Your task to perform on an android device: Find coffee shops on Maps Image 0: 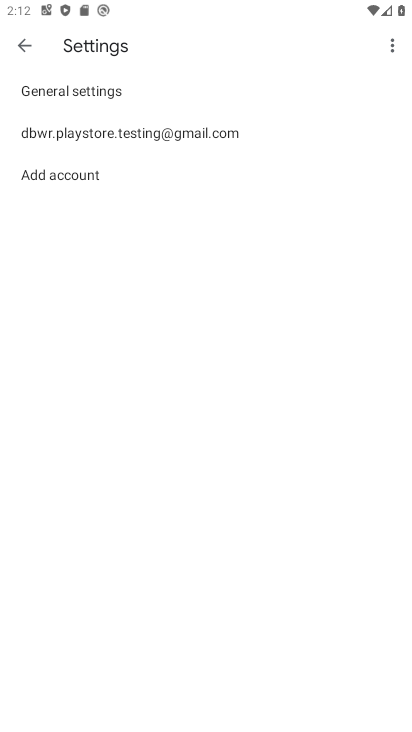
Step 0: press back button
Your task to perform on an android device: Find coffee shops on Maps Image 1: 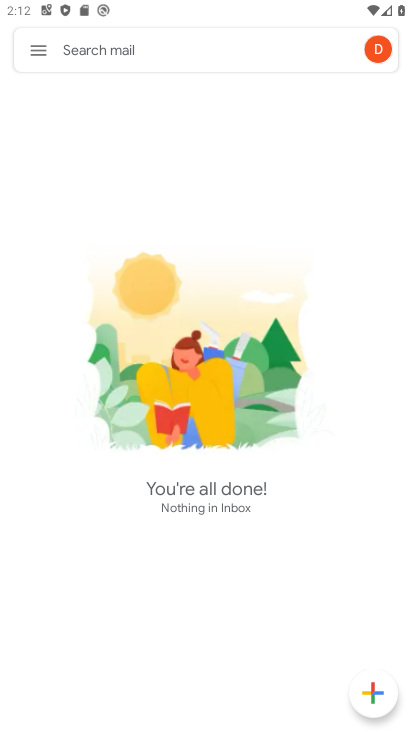
Step 1: press back button
Your task to perform on an android device: Find coffee shops on Maps Image 2: 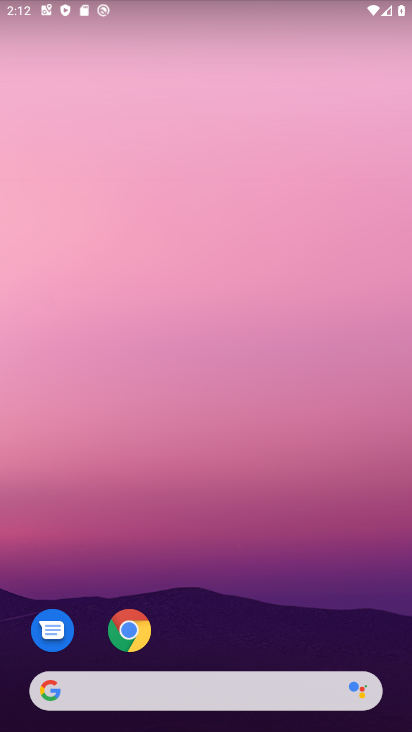
Step 2: click (58, 397)
Your task to perform on an android device: Find coffee shops on Maps Image 3: 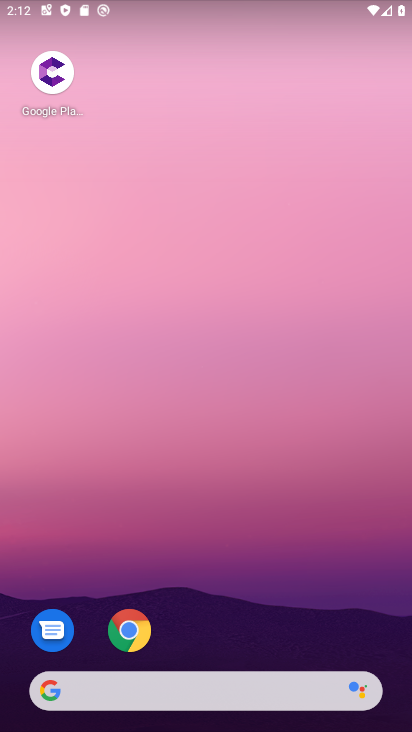
Step 3: drag from (58, 397) to (327, 402)
Your task to perform on an android device: Find coffee shops on Maps Image 4: 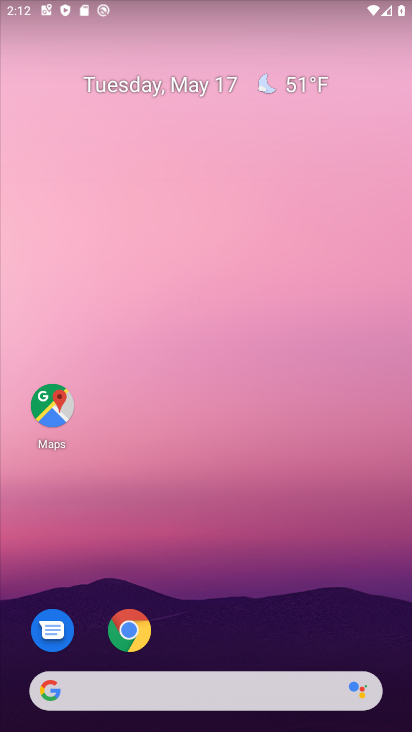
Step 4: click (37, 396)
Your task to perform on an android device: Find coffee shops on Maps Image 5: 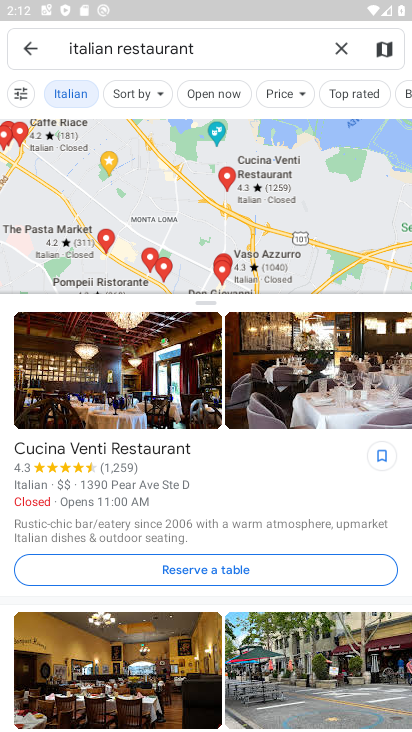
Step 5: task complete